Your task to perform on an android device: Go to privacy settings Image 0: 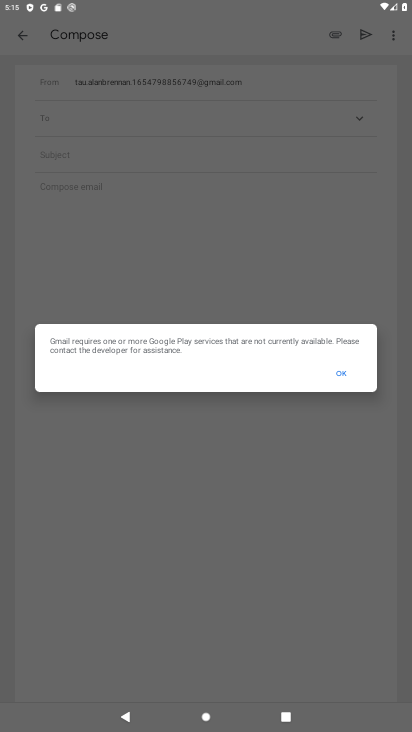
Step 0: press home button
Your task to perform on an android device: Go to privacy settings Image 1: 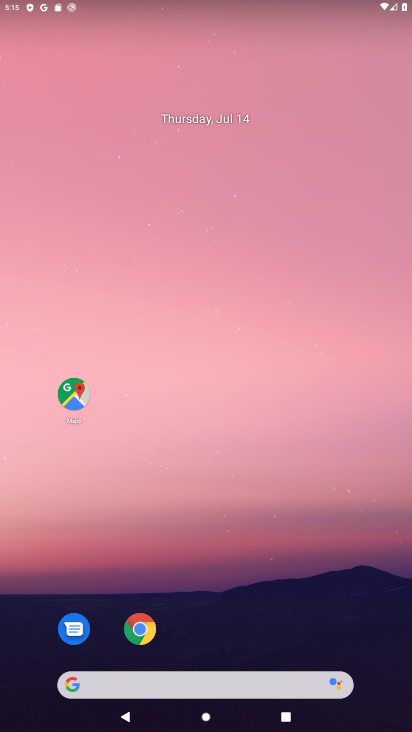
Step 1: drag from (243, 603) to (344, 41)
Your task to perform on an android device: Go to privacy settings Image 2: 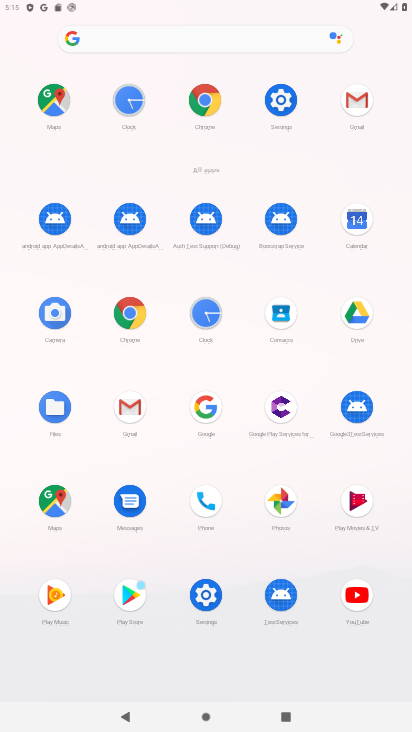
Step 2: click (282, 99)
Your task to perform on an android device: Go to privacy settings Image 3: 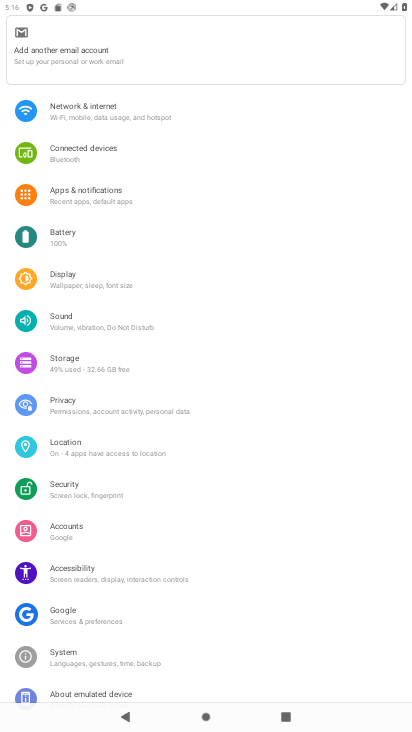
Step 3: click (115, 409)
Your task to perform on an android device: Go to privacy settings Image 4: 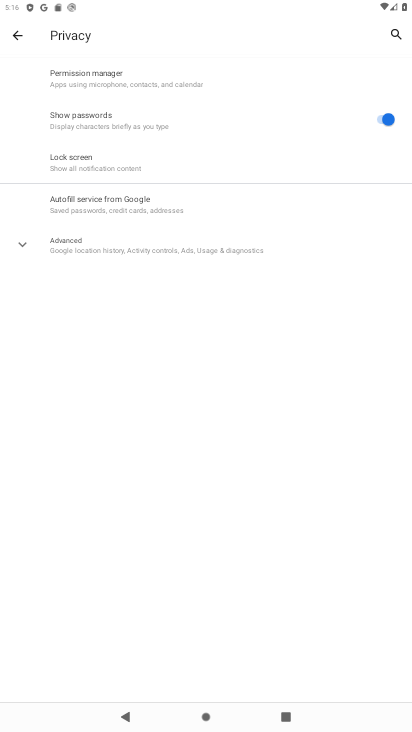
Step 4: task complete